Your task to perform on an android device: Open settings Image 0: 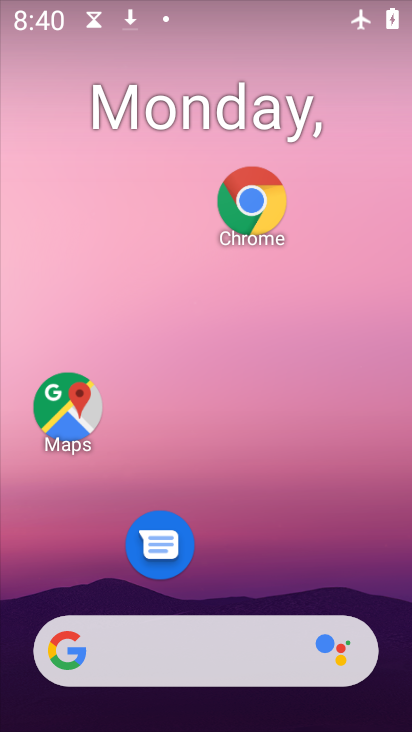
Step 0: drag from (241, 574) to (195, 180)
Your task to perform on an android device: Open settings Image 1: 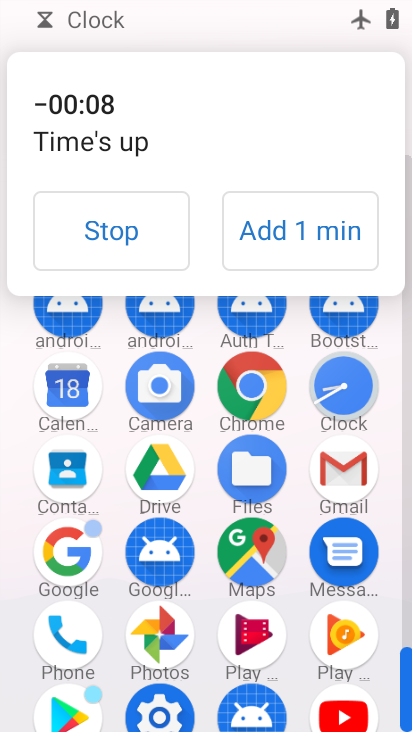
Step 1: click (135, 247)
Your task to perform on an android device: Open settings Image 2: 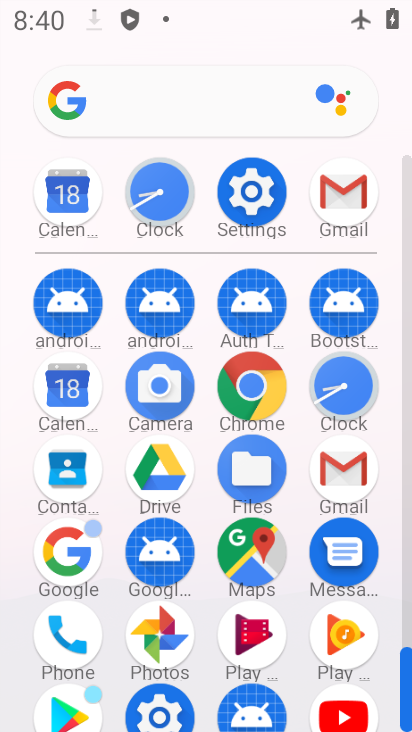
Step 2: click (235, 203)
Your task to perform on an android device: Open settings Image 3: 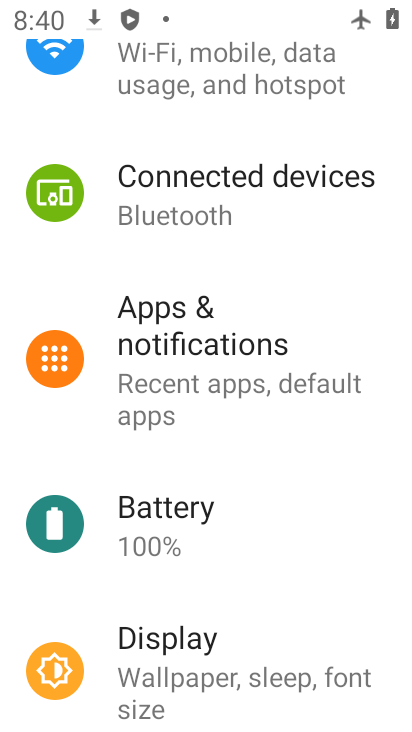
Step 3: click (248, 187)
Your task to perform on an android device: Open settings Image 4: 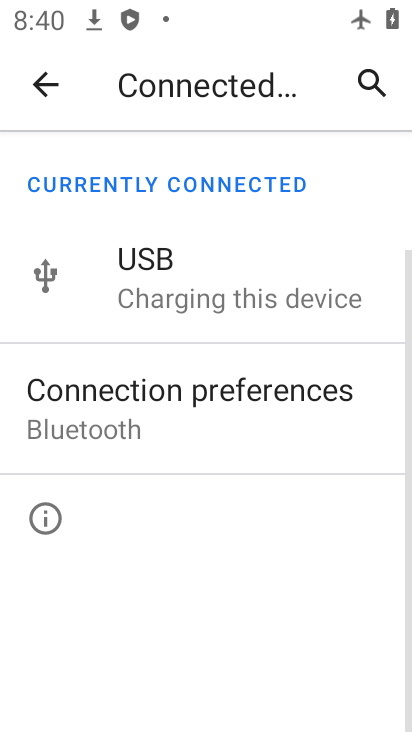
Step 4: click (46, 98)
Your task to perform on an android device: Open settings Image 5: 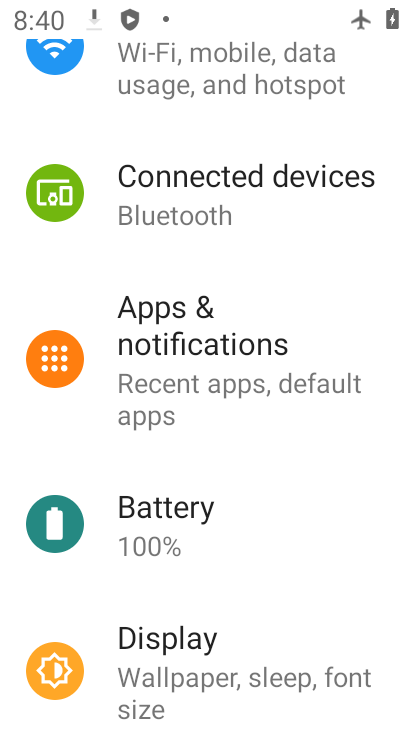
Step 5: task complete